Your task to perform on an android device: turn off priority inbox in the gmail app Image 0: 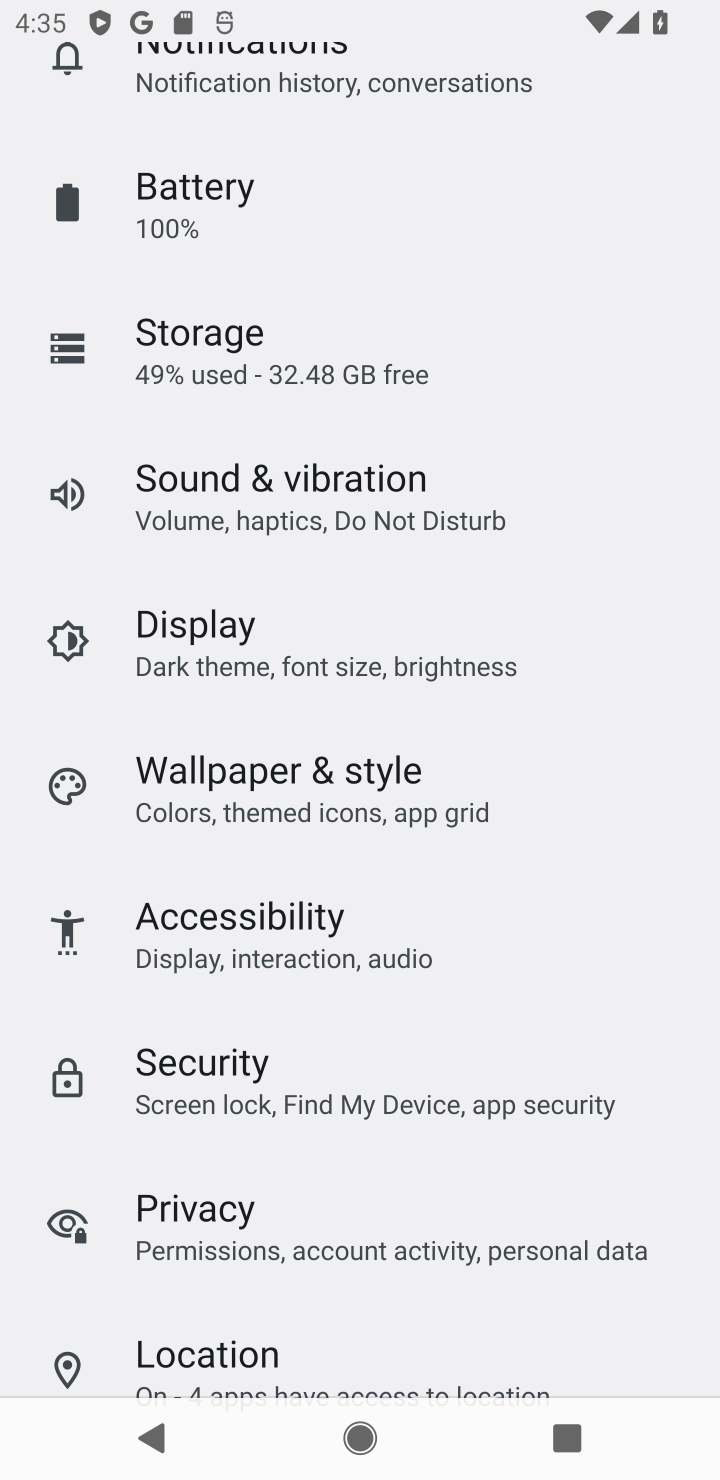
Step 0: press home button
Your task to perform on an android device: turn off priority inbox in the gmail app Image 1: 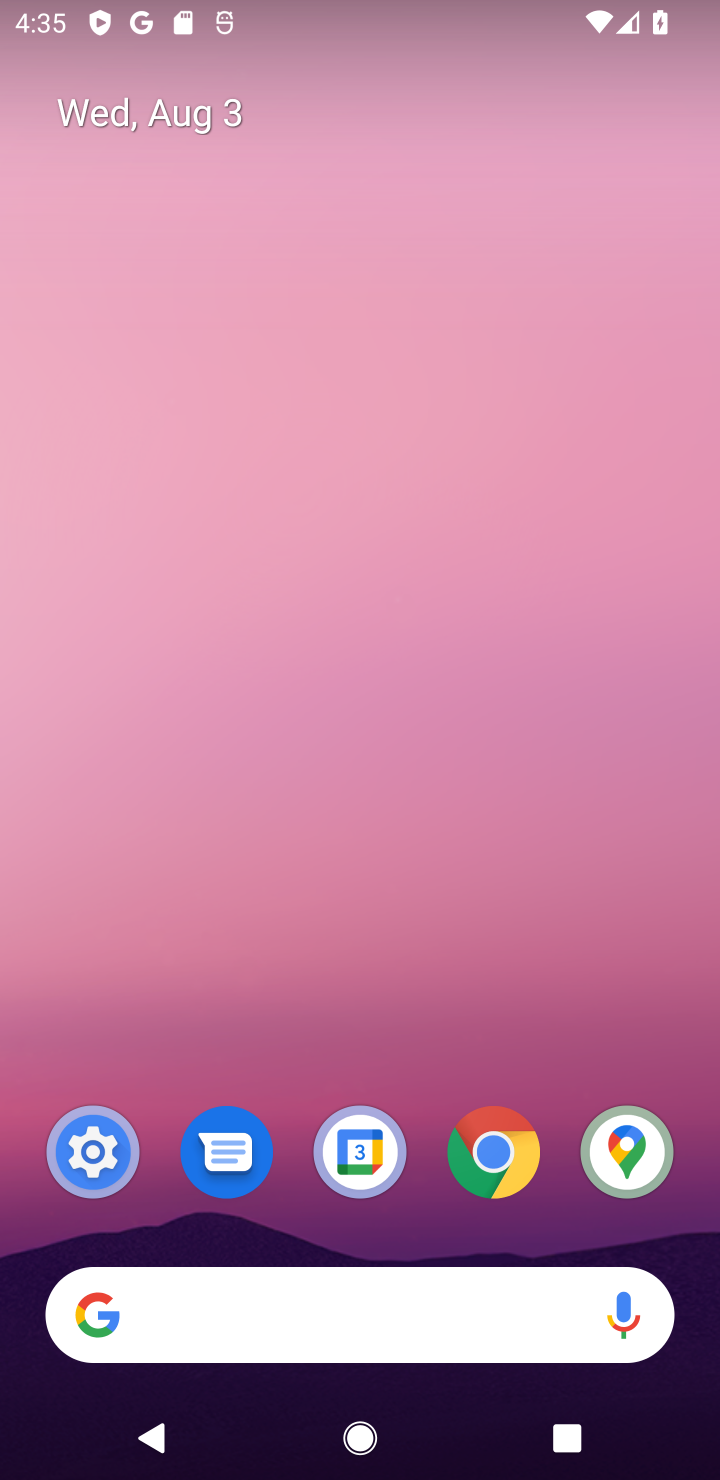
Step 1: drag from (296, 1312) to (320, 456)
Your task to perform on an android device: turn off priority inbox in the gmail app Image 2: 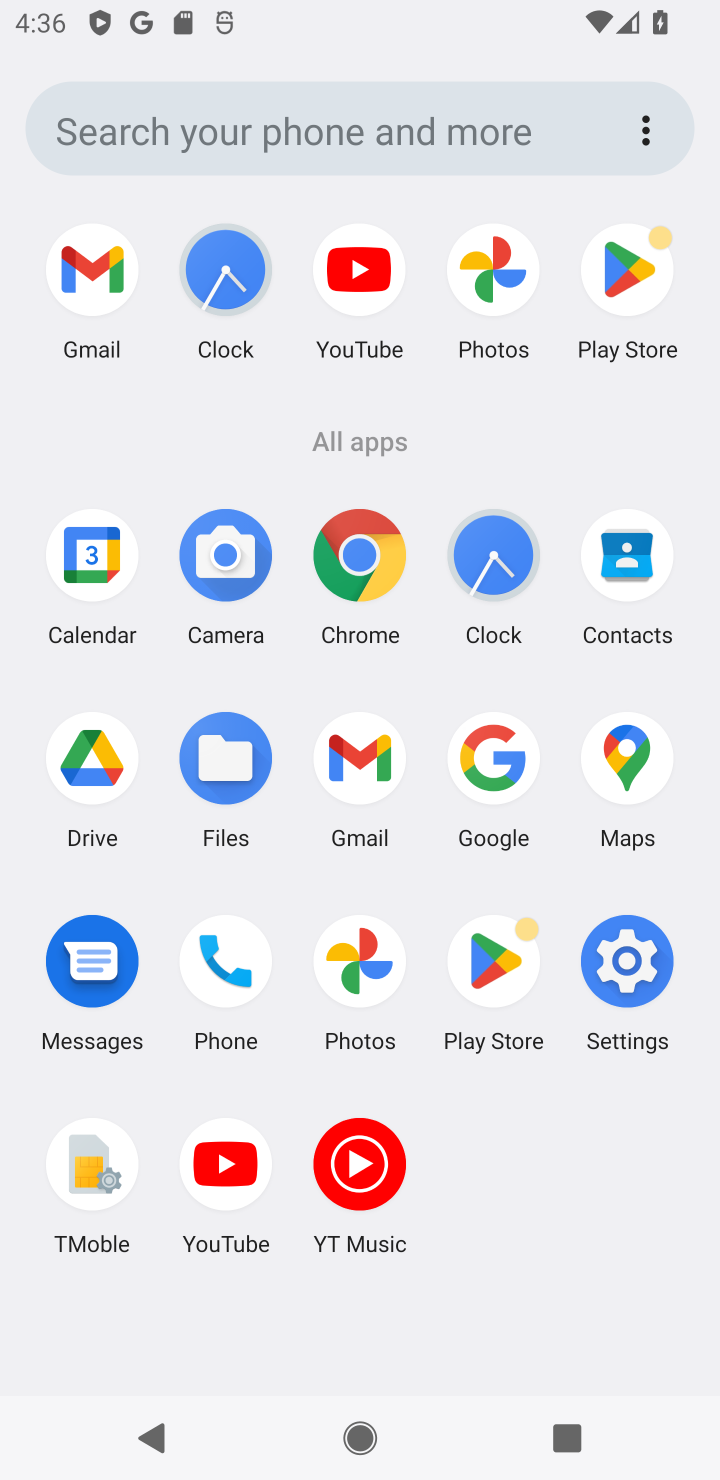
Step 2: click (360, 767)
Your task to perform on an android device: turn off priority inbox in the gmail app Image 3: 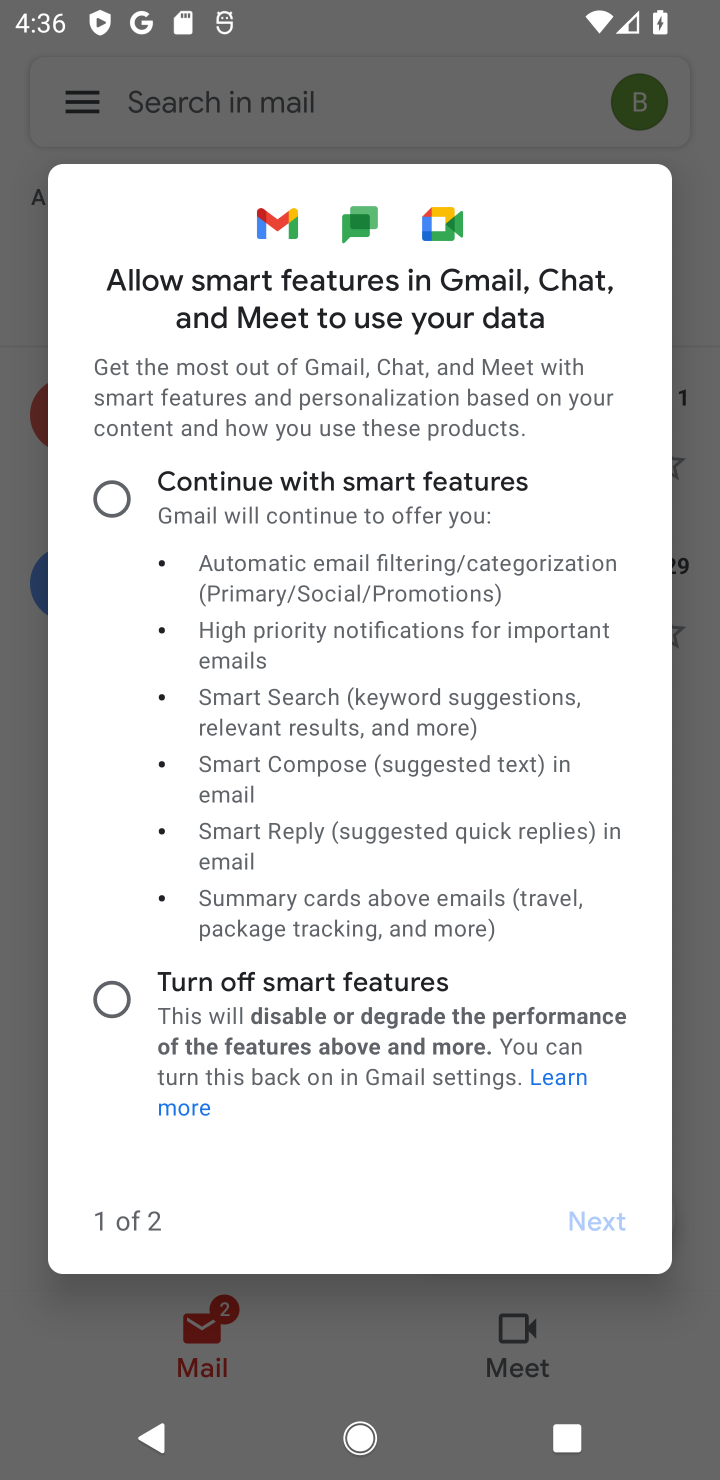
Step 3: click (116, 494)
Your task to perform on an android device: turn off priority inbox in the gmail app Image 4: 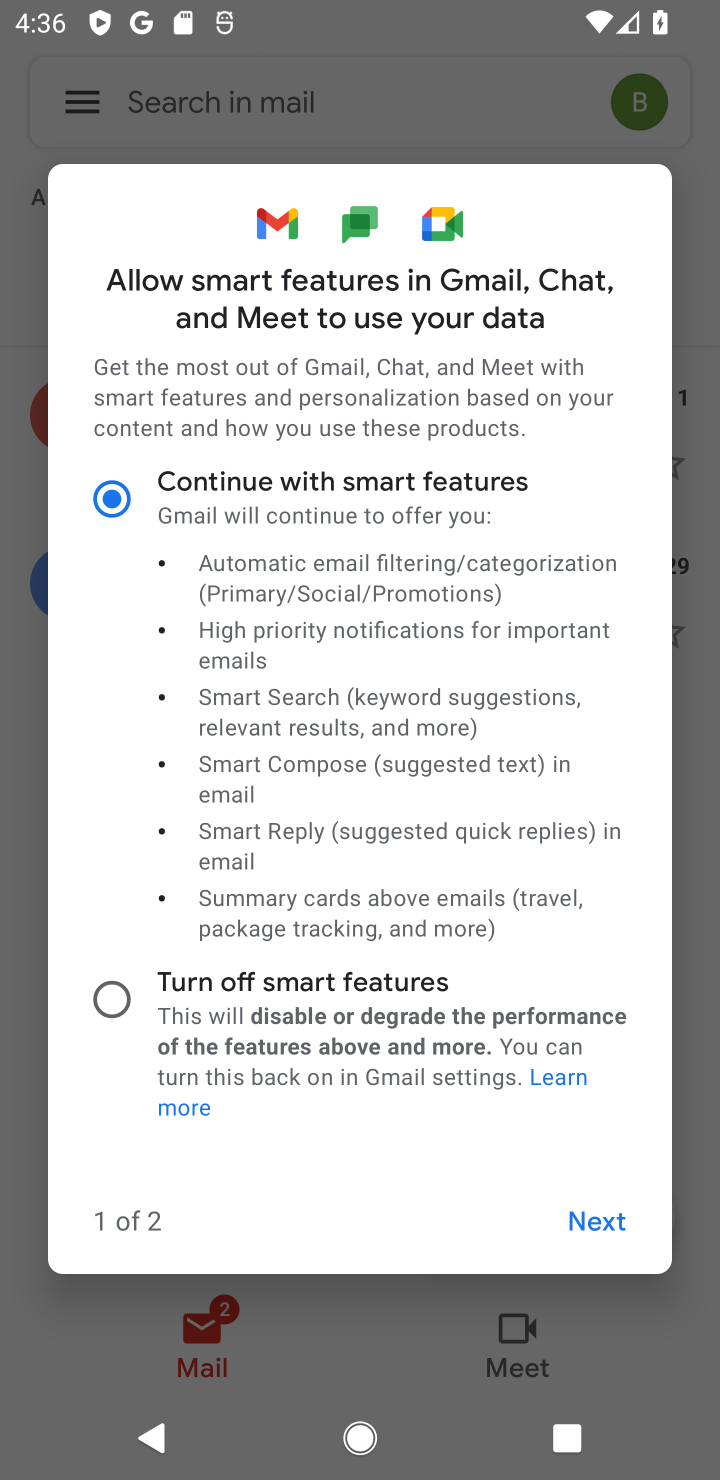
Step 4: click (600, 1225)
Your task to perform on an android device: turn off priority inbox in the gmail app Image 5: 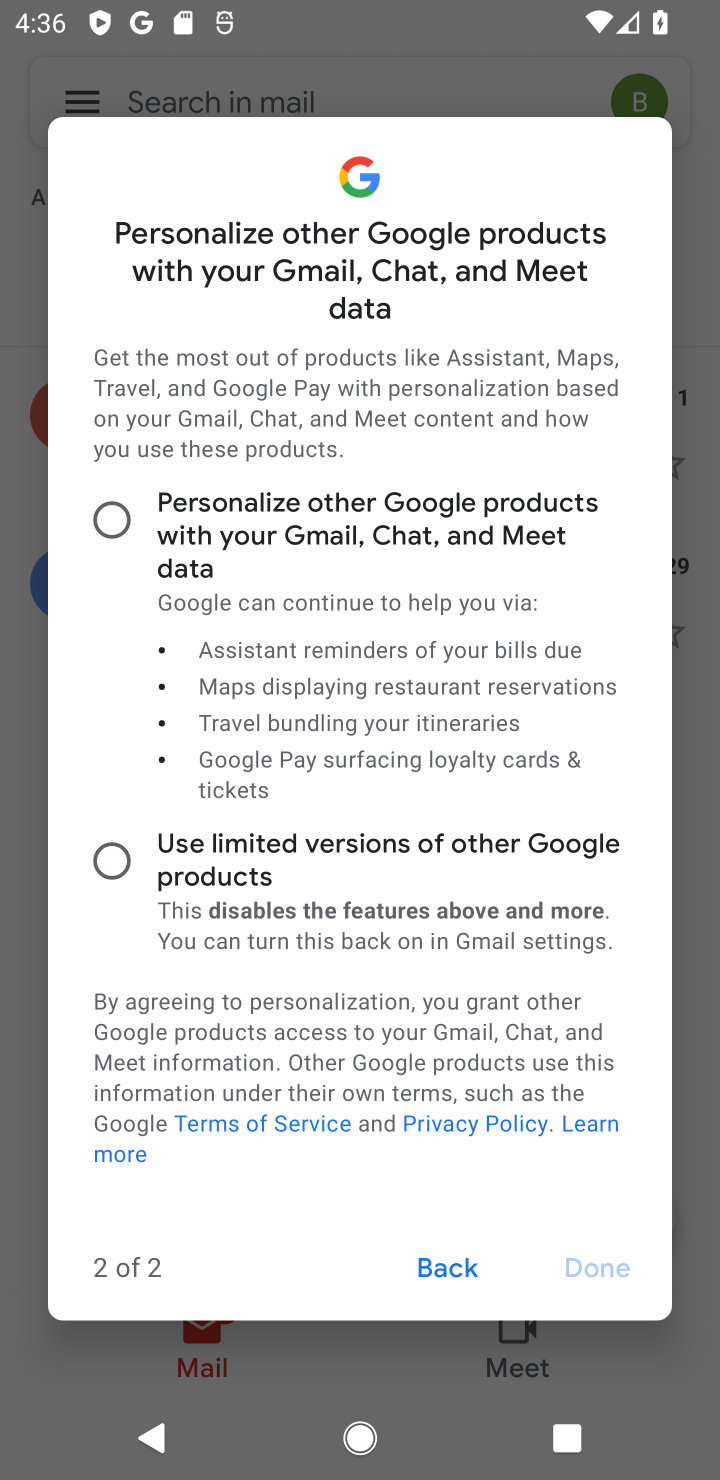
Step 5: click (128, 543)
Your task to perform on an android device: turn off priority inbox in the gmail app Image 6: 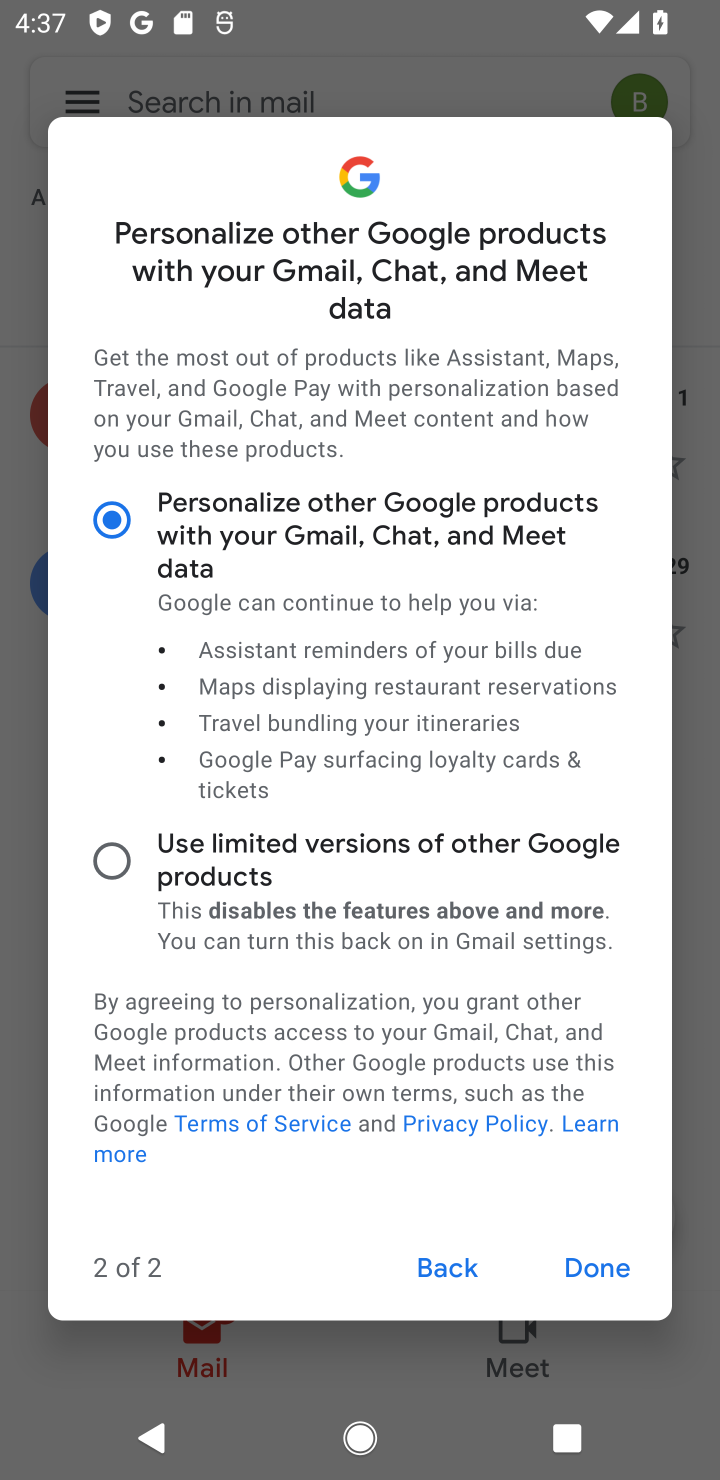
Step 6: click (608, 1277)
Your task to perform on an android device: turn off priority inbox in the gmail app Image 7: 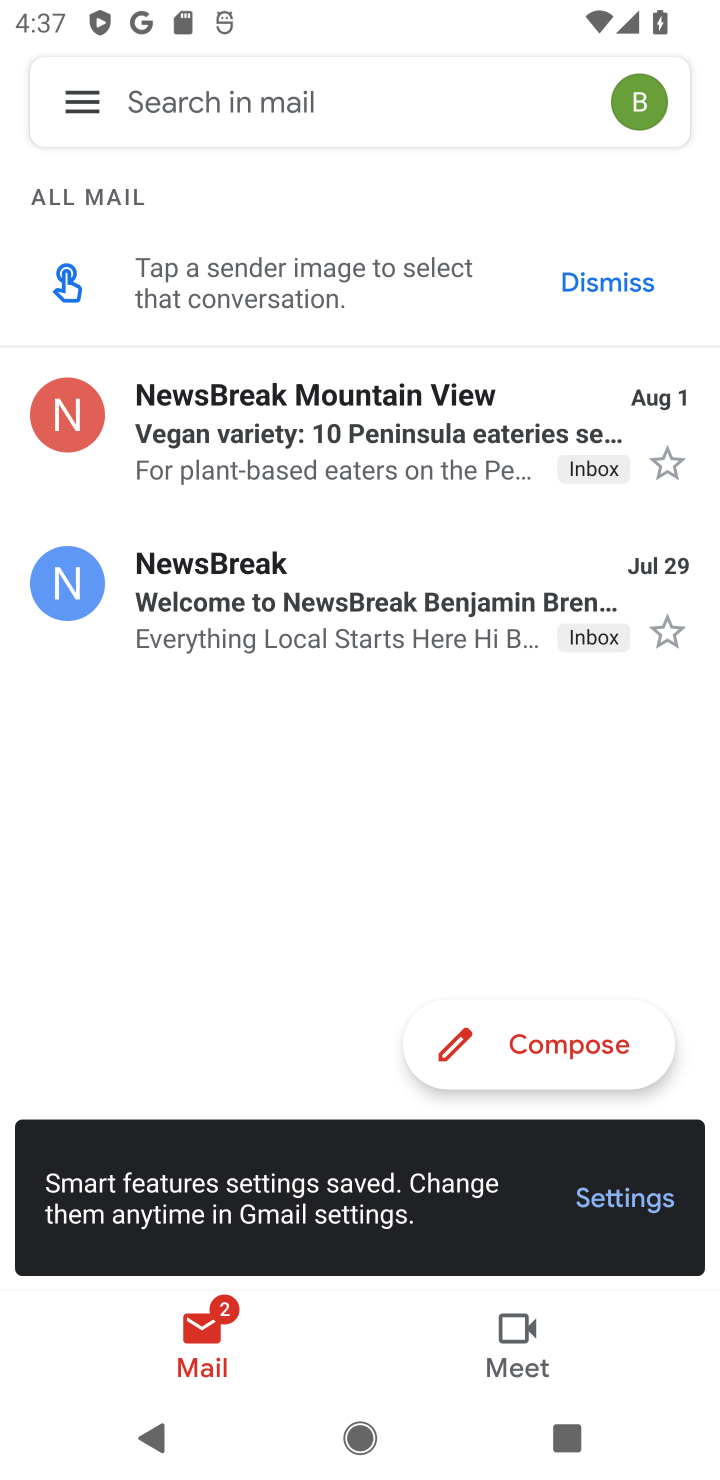
Step 7: click (72, 102)
Your task to perform on an android device: turn off priority inbox in the gmail app Image 8: 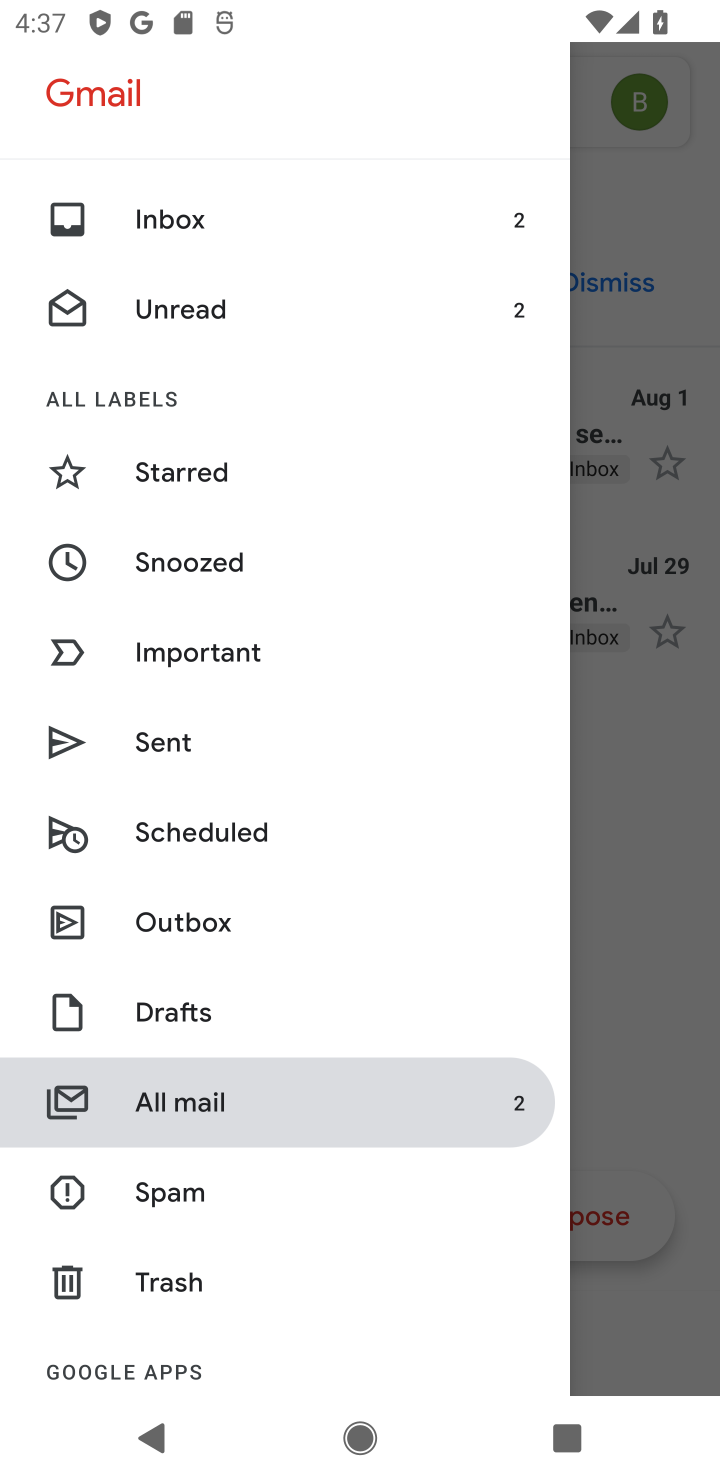
Step 8: drag from (157, 1106) to (168, 725)
Your task to perform on an android device: turn off priority inbox in the gmail app Image 9: 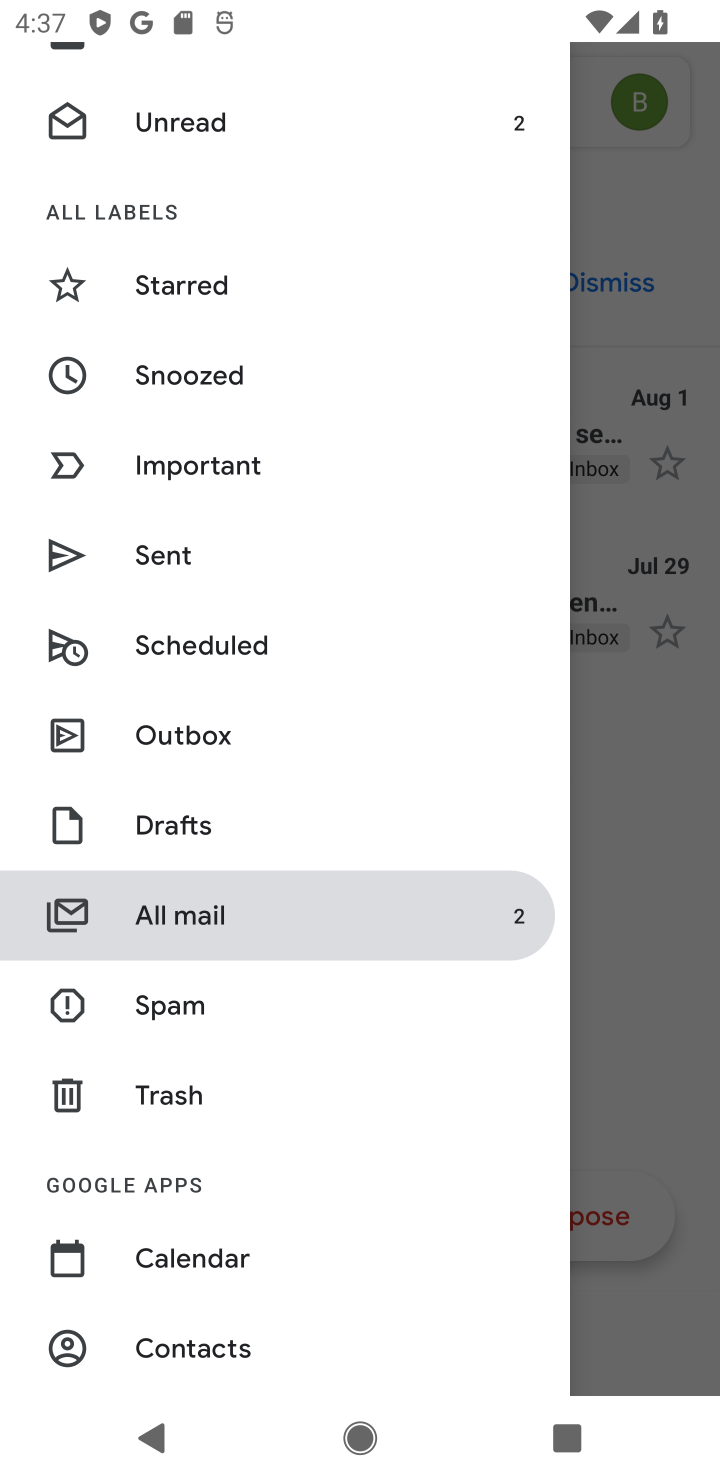
Step 9: drag from (235, 1201) to (274, 904)
Your task to perform on an android device: turn off priority inbox in the gmail app Image 10: 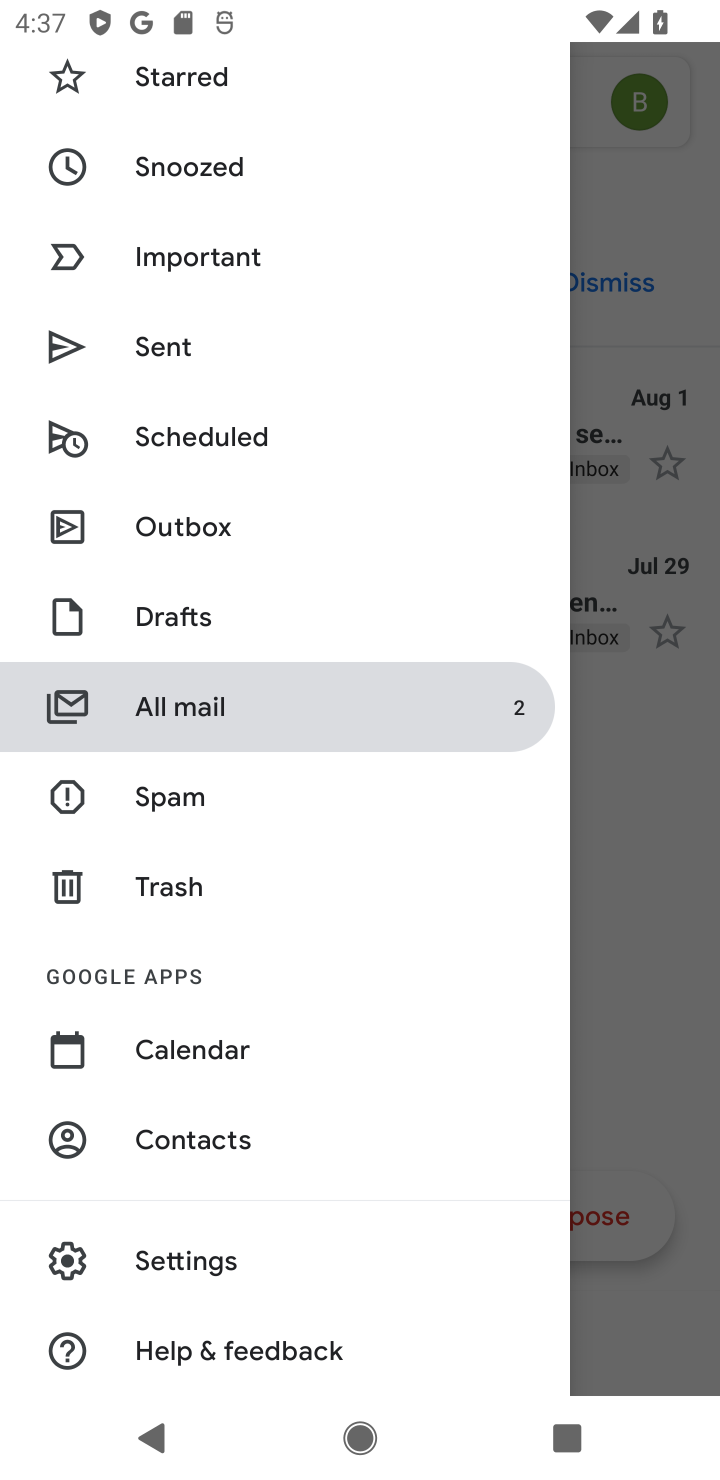
Step 10: click (139, 1261)
Your task to perform on an android device: turn off priority inbox in the gmail app Image 11: 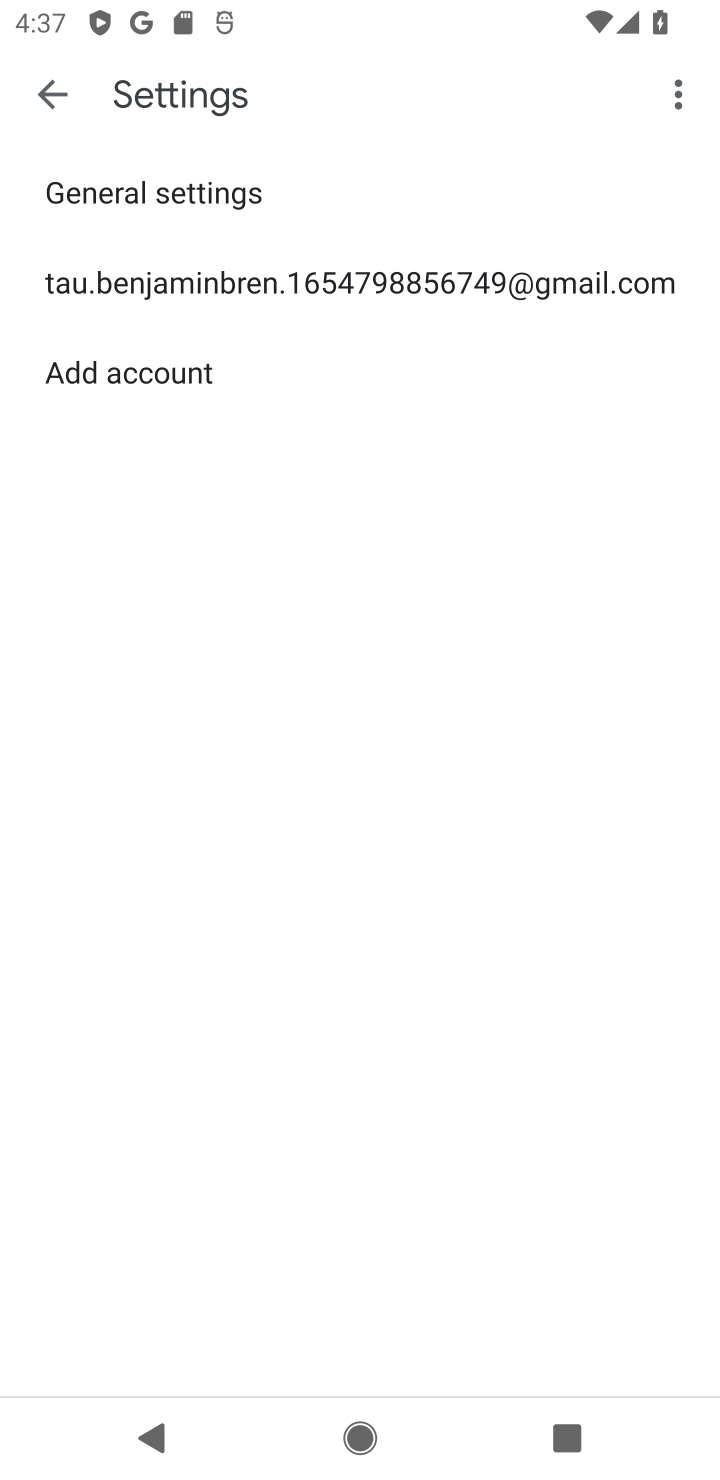
Step 11: click (247, 280)
Your task to perform on an android device: turn off priority inbox in the gmail app Image 12: 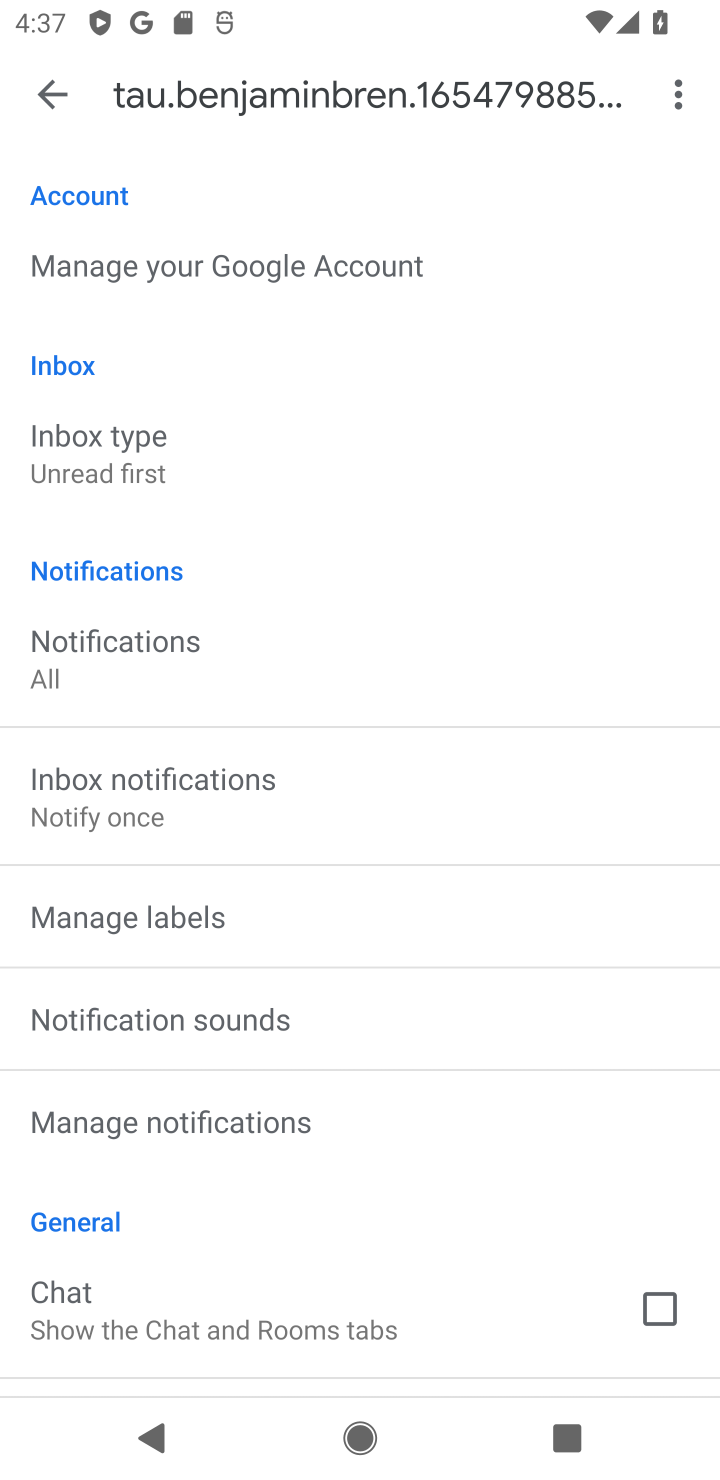
Step 12: click (168, 432)
Your task to perform on an android device: turn off priority inbox in the gmail app Image 13: 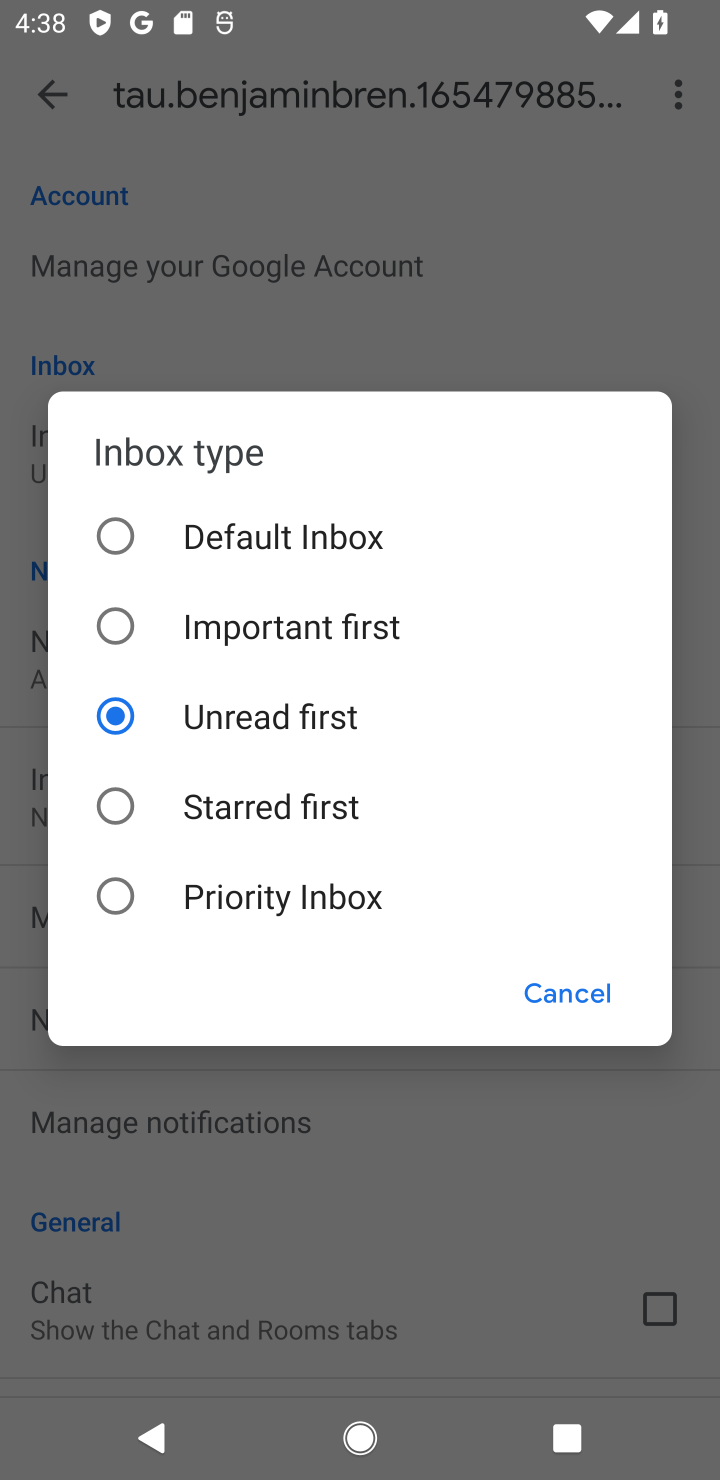
Step 13: click (215, 720)
Your task to perform on an android device: turn off priority inbox in the gmail app Image 14: 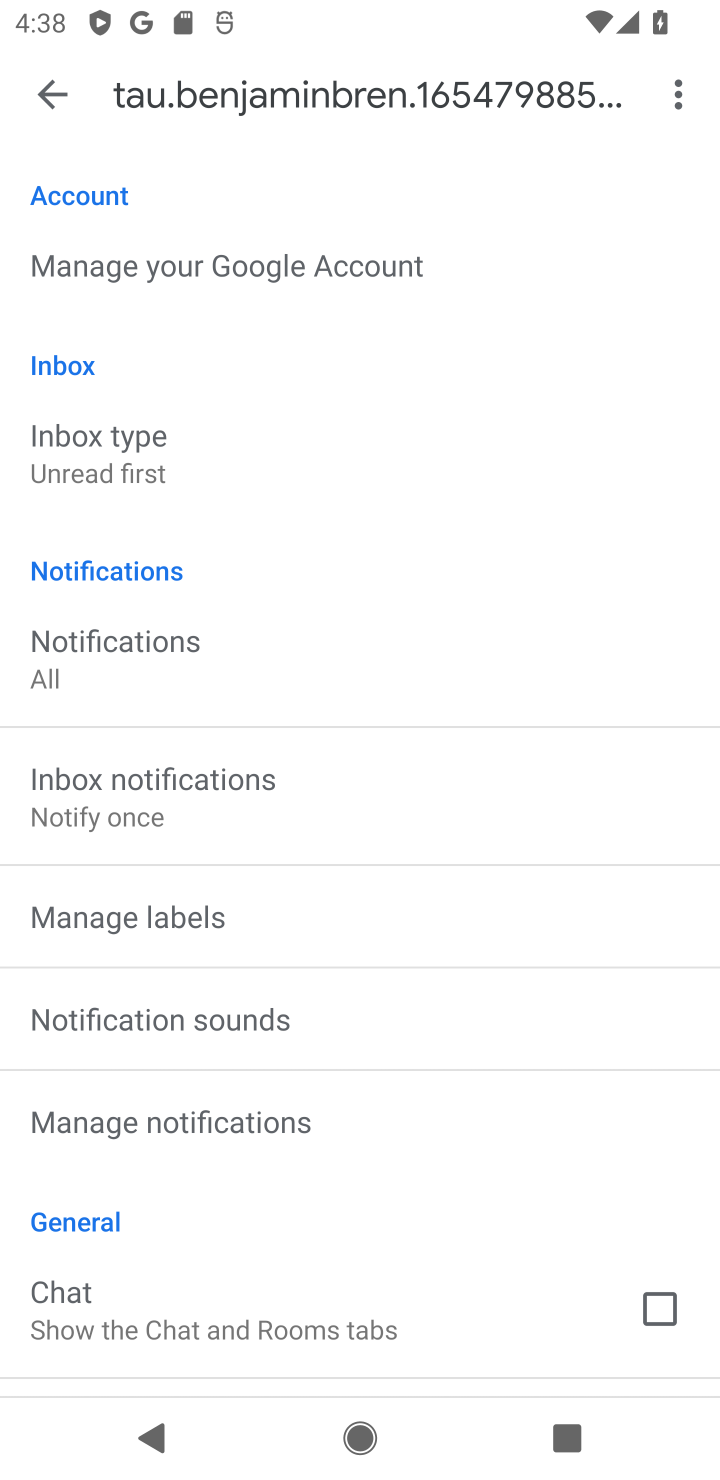
Step 14: task complete